Your task to perform on an android device: Open Android settings Image 0: 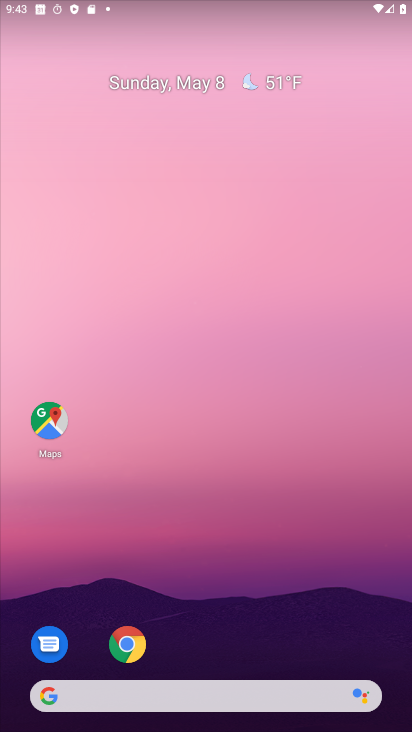
Step 0: click (315, 187)
Your task to perform on an android device: Open Android settings Image 1: 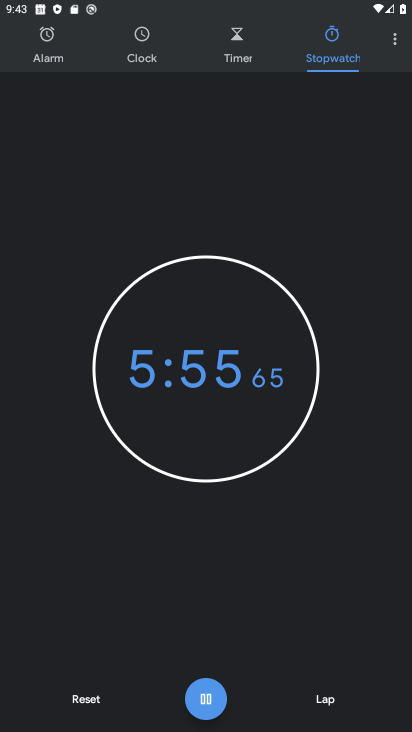
Step 1: click (81, 700)
Your task to perform on an android device: Open Android settings Image 2: 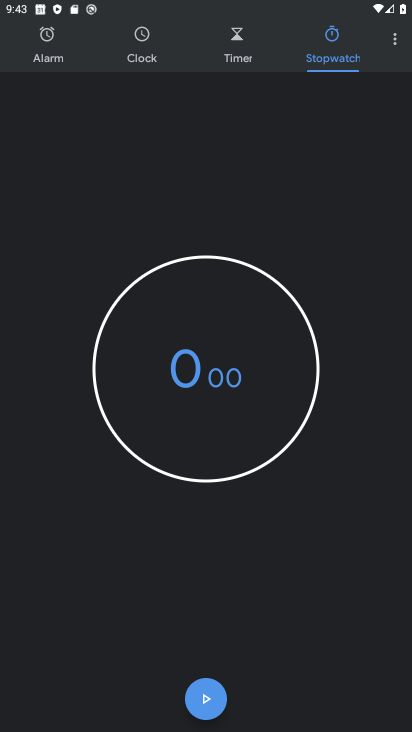
Step 2: press home button
Your task to perform on an android device: Open Android settings Image 3: 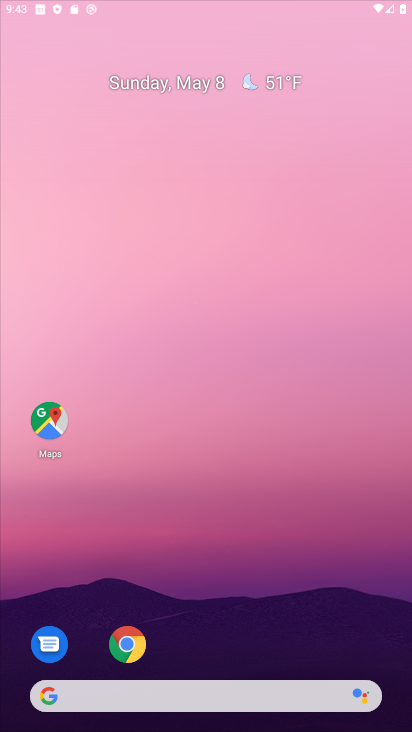
Step 3: drag from (214, 621) to (228, 216)
Your task to perform on an android device: Open Android settings Image 4: 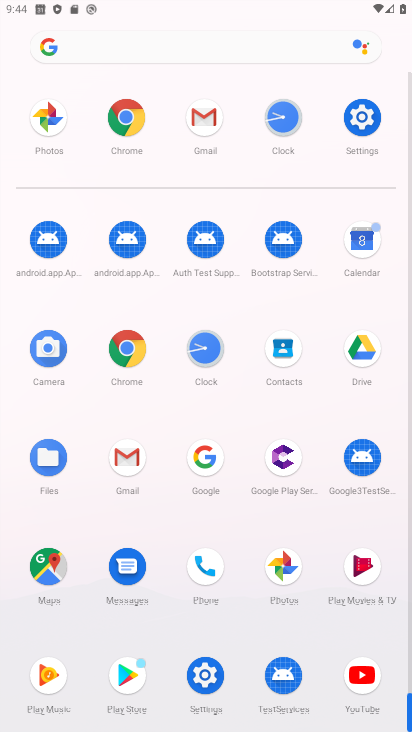
Step 4: click (201, 677)
Your task to perform on an android device: Open Android settings Image 5: 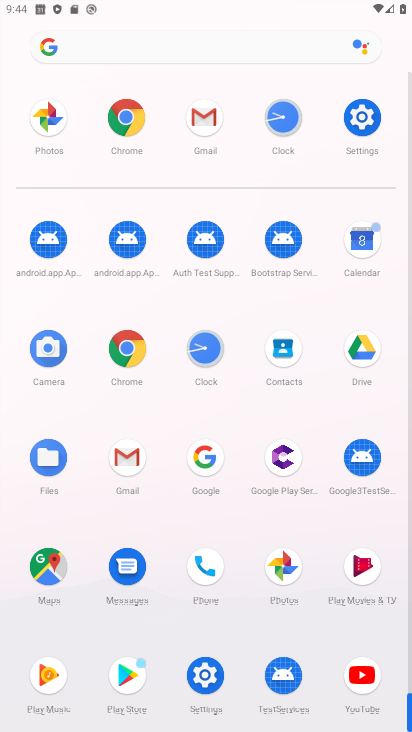
Step 5: click (201, 677)
Your task to perform on an android device: Open Android settings Image 6: 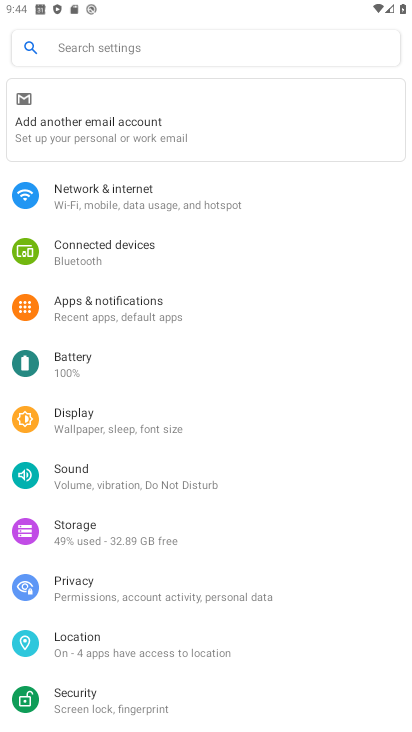
Step 6: drag from (179, 673) to (273, 234)
Your task to perform on an android device: Open Android settings Image 7: 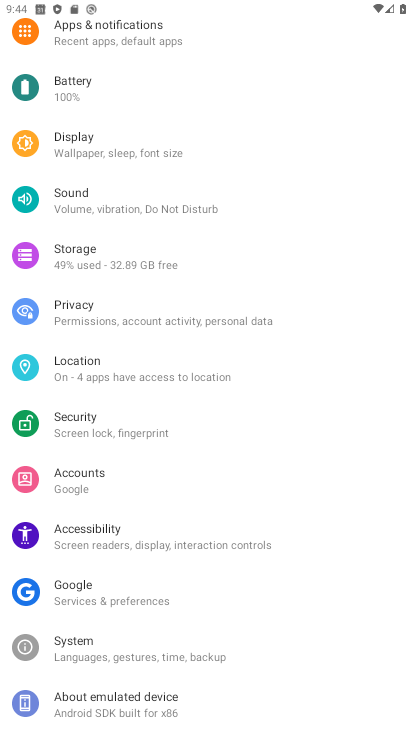
Step 7: click (152, 706)
Your task to perform on an android device: Open Android settings Image 8: 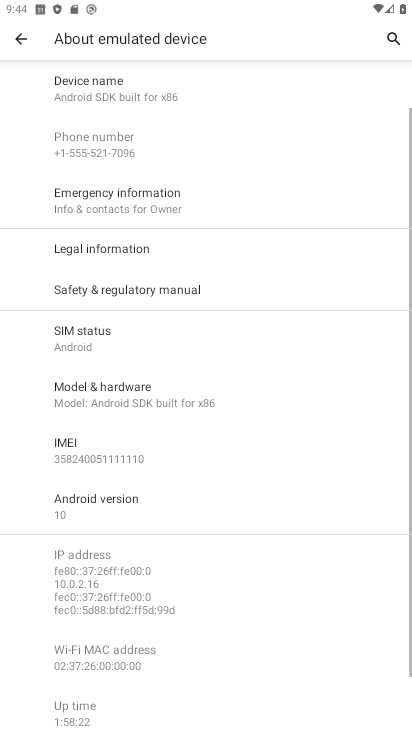
Step 8: click (115, 517)
Your task to perform on an android device: Open Android settings Image 9: 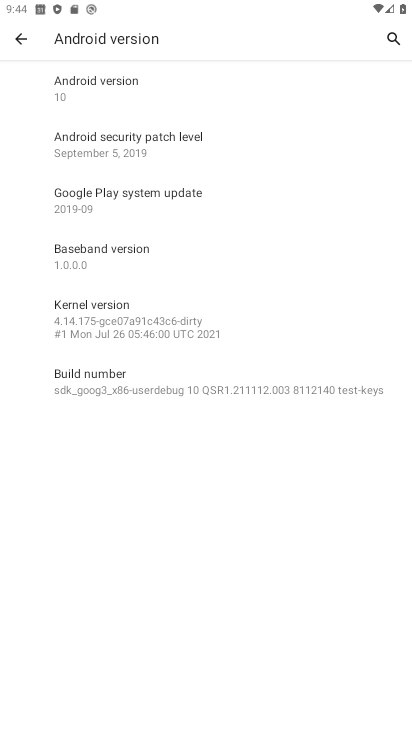
Step 9: task complete